Your task to perform on an android device: change the clock display to analog Image 0: 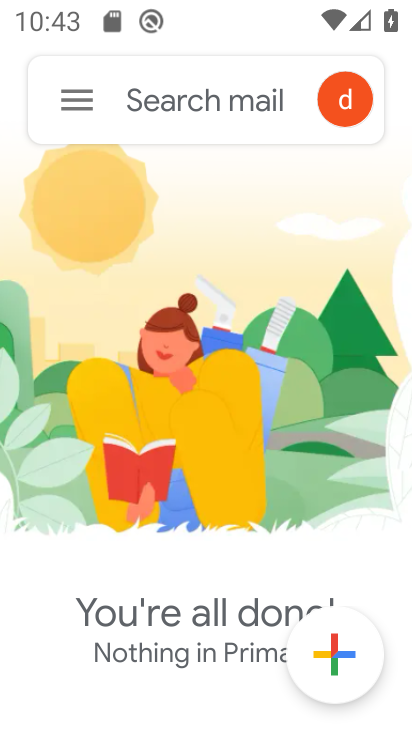
Step 0: press home button
Your task to perform on an android device: change the clock display to analog Image 1: 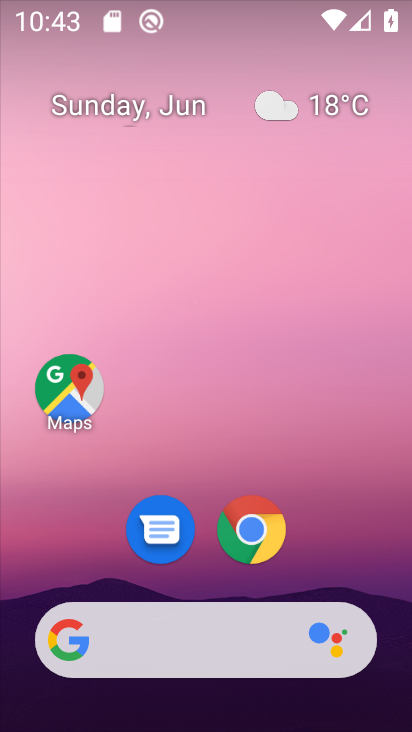
Step 1: drag from (87, 605) to (222, 32)
Your task to perform on an android device: change the clock display to analog Image 2: 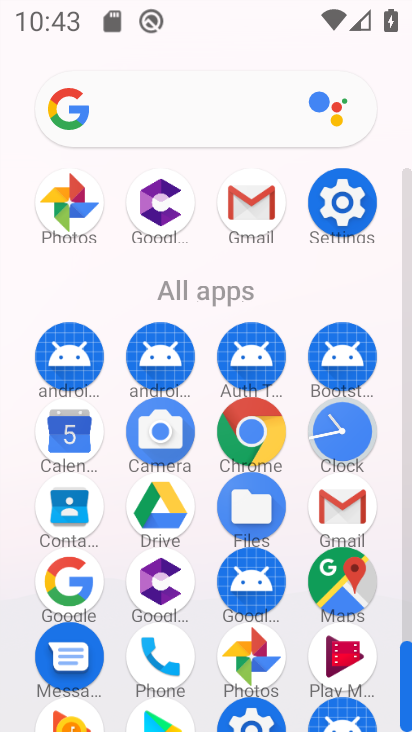
Step 2: click (314, 432)
Your task to perform on an android device: change the clock display to analog Image 3: 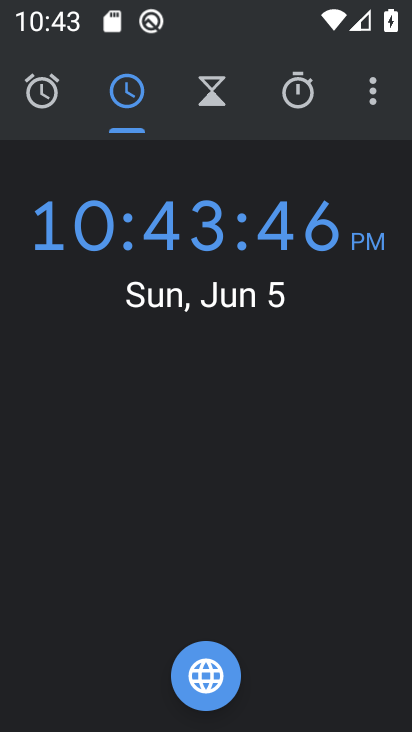
Step 3: click (377, 97)
Your task to perform on an android device: change the clock display to analog Image 4: 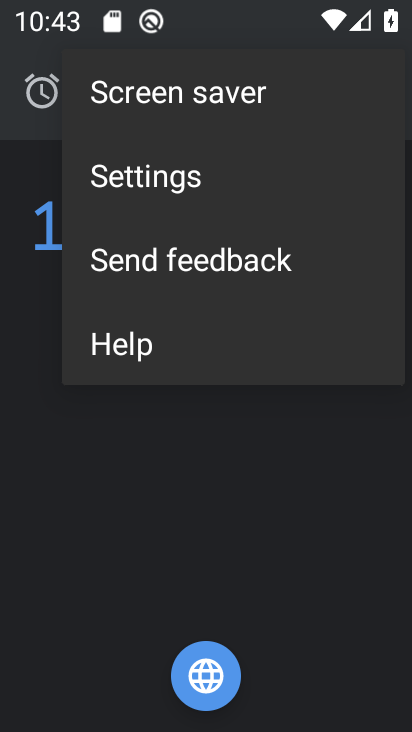
Step 4: click (273, 173)
Your task to perform on an android device: change the clock display to analog Image 5: 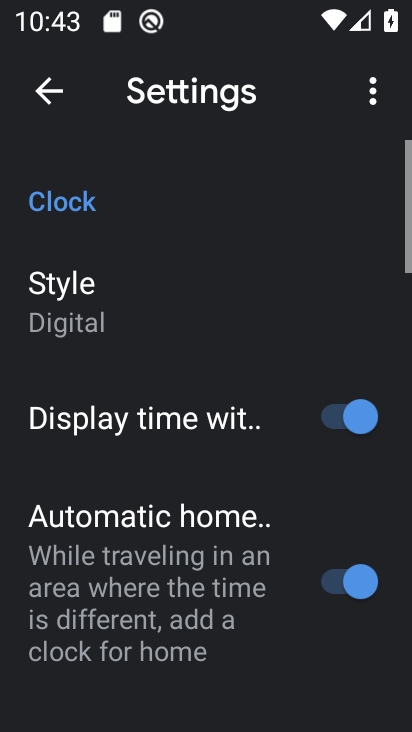
Step 5: click (260, 288)
Your task to perform on an android device: change the clock display to analog Image 6: 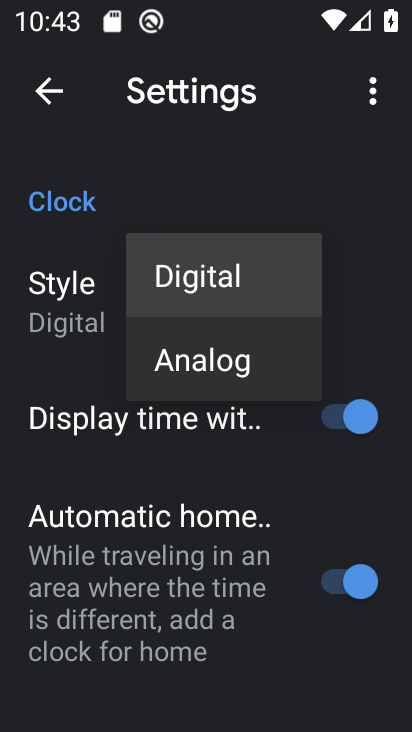
Step 6: click (255, 362)
Your task to perform on an android device: change the clock display to analog Image 7: 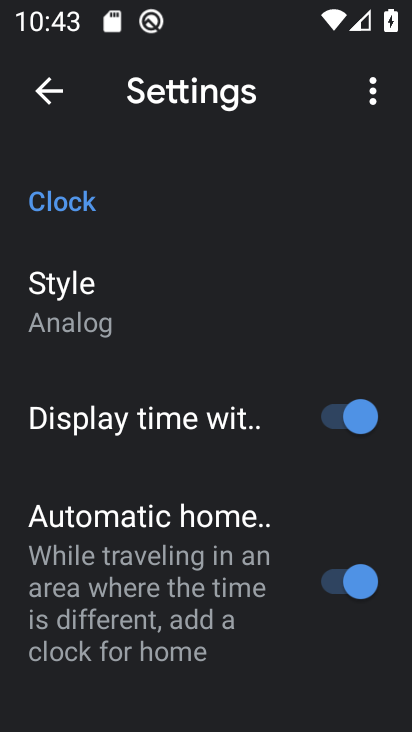
Step 7: task complete